Your task to perform on an android device: Go to location settings Image 0: 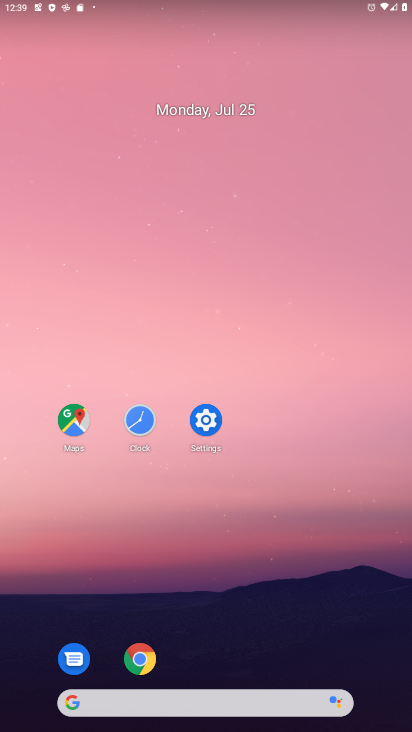
Step 0: click (205, 424)
Your task to perform on an android device: Go to location settings Image 1: 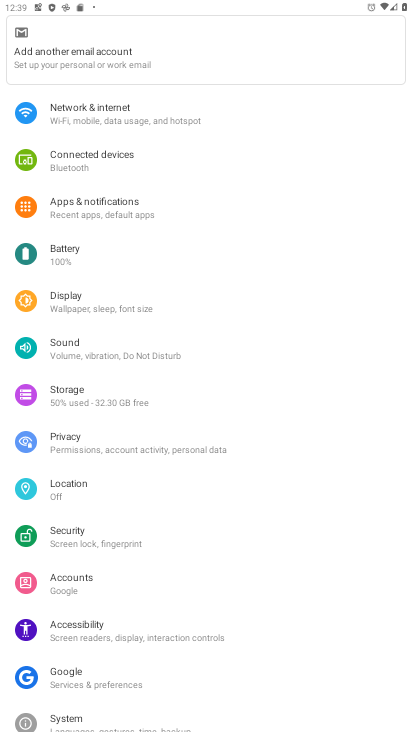
Step 1: click (69, 491)
Your task to perform on an android device: Go to location settings Image 2: 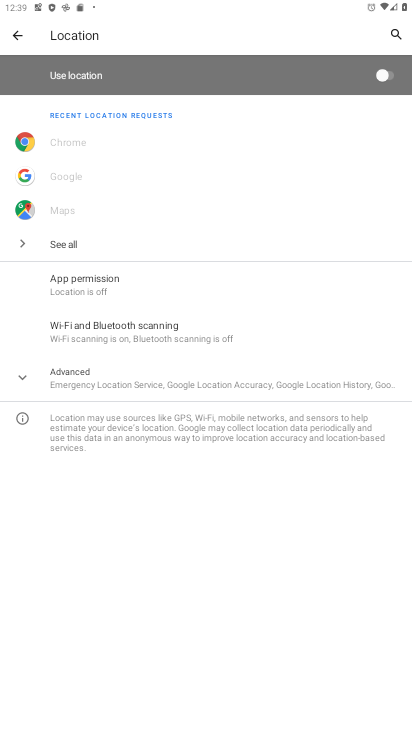
Step 2: click (21, 377)
Your task to perform on an android device: Go to location settings Image 3: 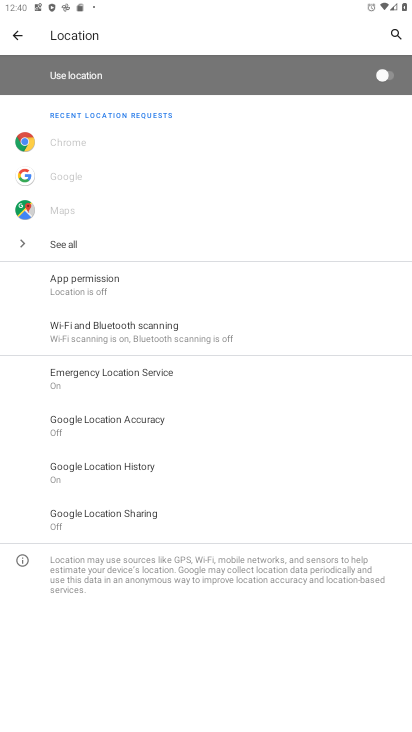
Step 3: task complete